Your task to perform on an android device: Open network settings Image 0: 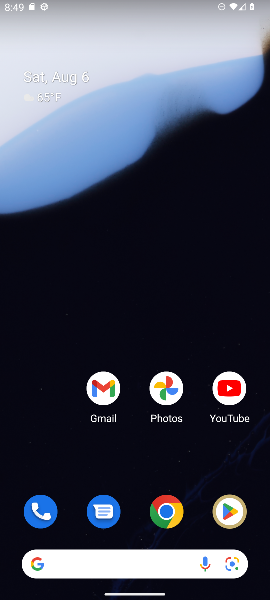
Step 0: press home button
Your task to perform on an android device: Open network settings Image 1: 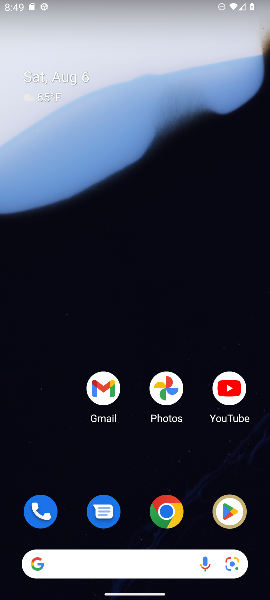
Step 1: press home button
Your task to perform on an android device: Open network settings Image 2: 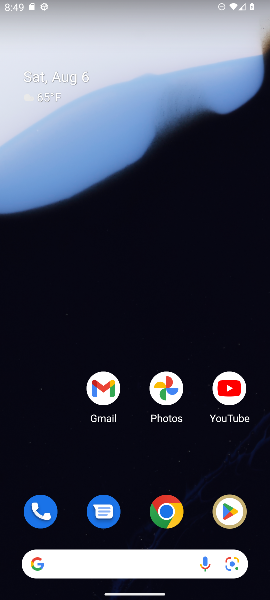
Step 2: press home button
Your task to perform on an android device: Open network settings Image 3: 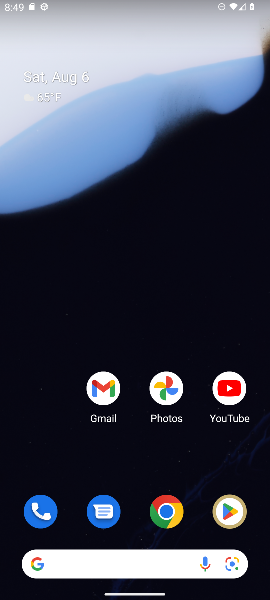
Step 3: press home button
Your task to perform on an android device: Open network settings Image 4: 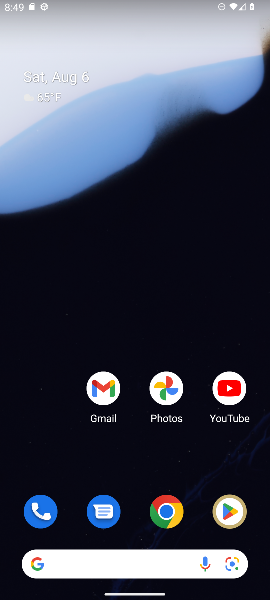
Step 4: drag from (122, 464) to (177, 69)
Your task to perform on an android device: Open network settings Image 5: 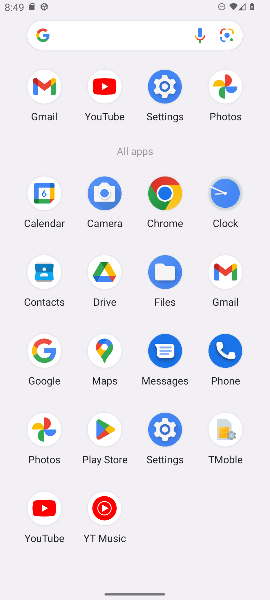
Step 5: click (171, 78)
Your task to perform on an android device: Open network settings Image 6: 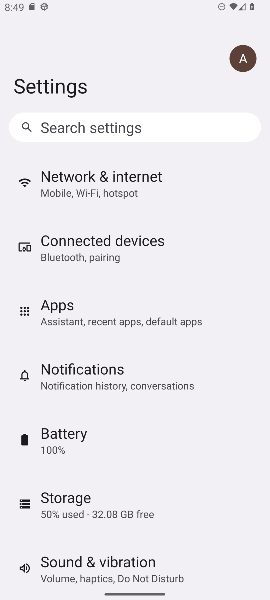
Step 6: click (74, 189)
Your task to perform on an android device: Open network settings Image 7: 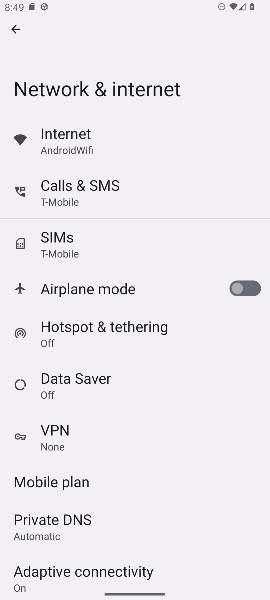
Step 7: task complete